Your task to perform on an android device: Search for sushi restaurants on Maps Image 0: 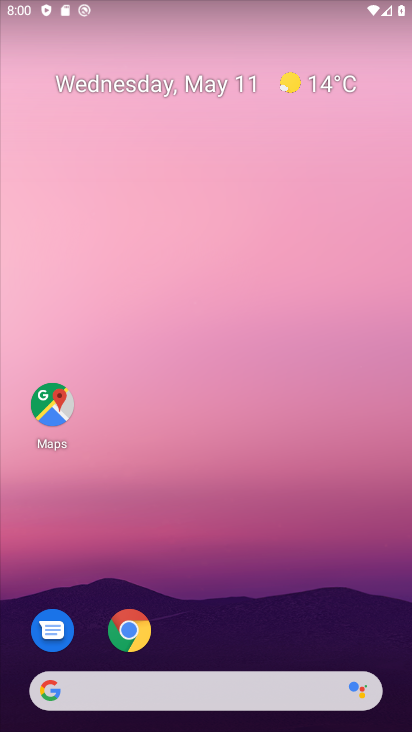
Step 0: click (65, 413)
Your task to perform on an android device: Search for sushi restaurants on Maps Image 1: 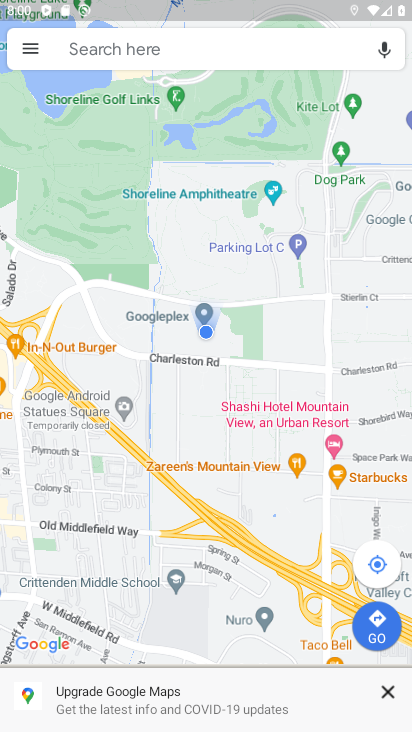
Step 1: click (152, 53)
Your task to perform on an android device: Search for sushi restaurants on Maps Image 2: 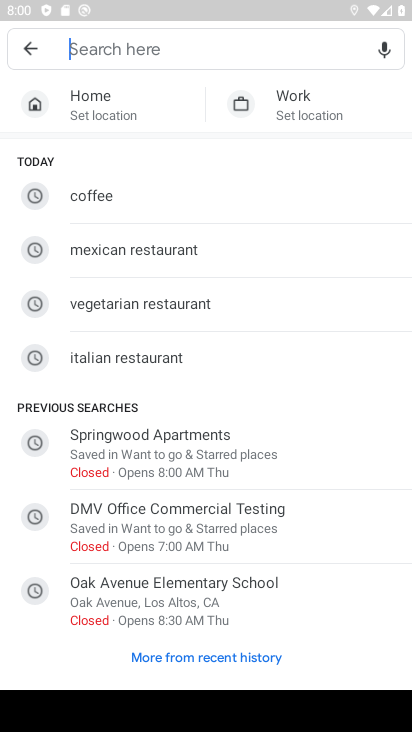
Step 2: type "sushi restuarant"
Your task to perform on an android device: Search for sushi restaurants on Maps Image 3: 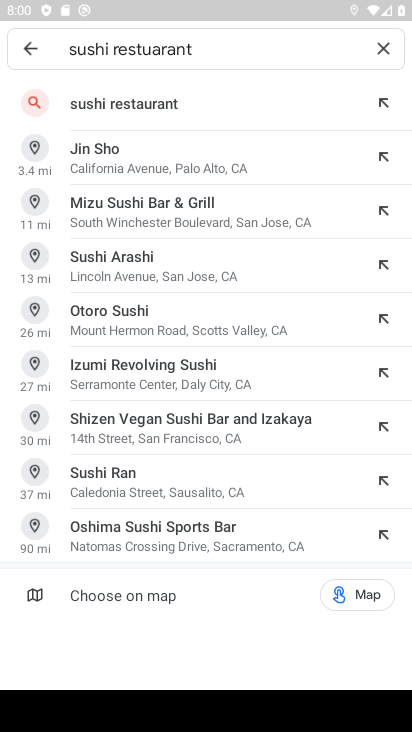
Step 3: click (144, 112)
Your task to perform on an android device: Search for sushi restaurants on Maps Image 4: 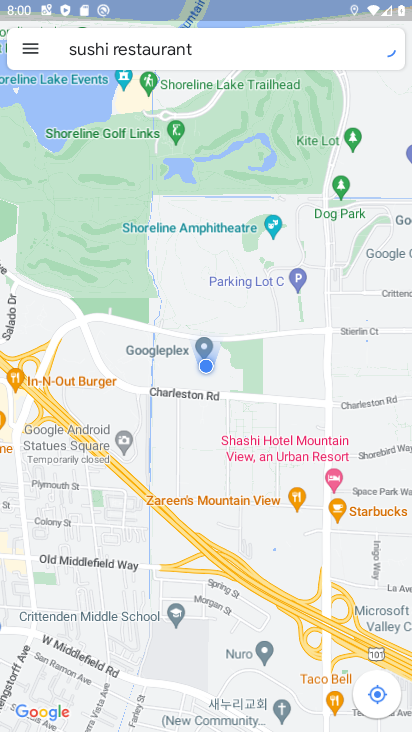
Step 4: task complete